Your task to perform on an android device: change the clock style Image 0: 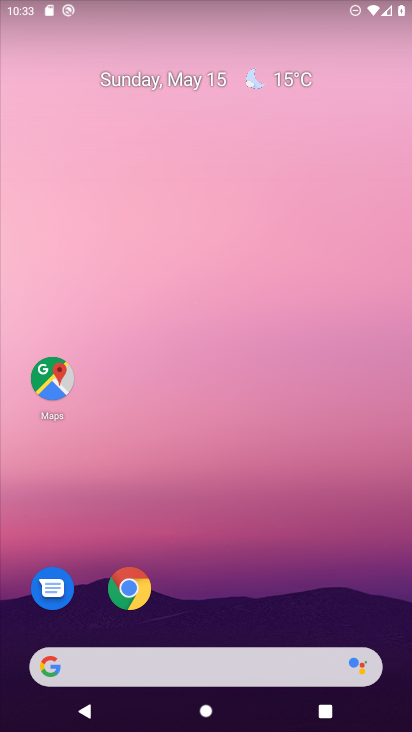
Step 0: drag from (216, 580) to (276, 155)
Your task to perform on an android device: change the clock style Image 1: 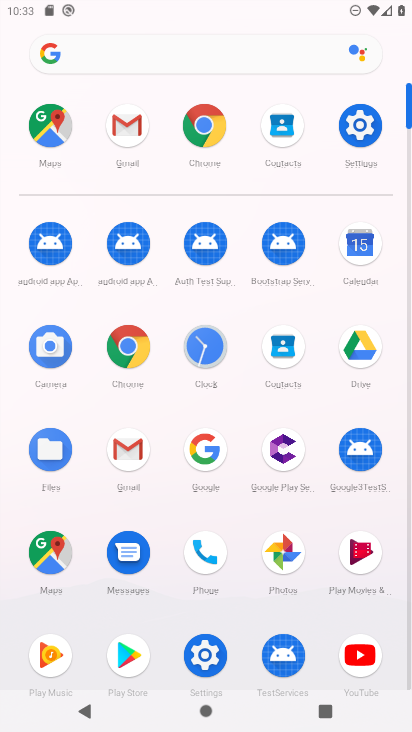
Step 1: click (209, 356)
Your task to perform on an android device: change the clock style Image 2: 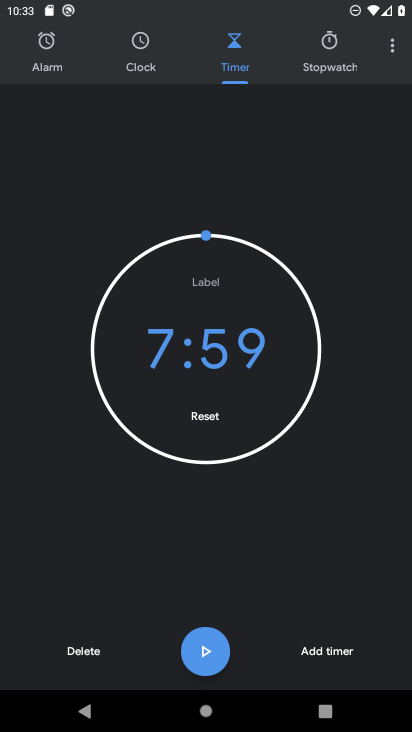
Step 2: click (394, 48)
Your task to perform on an android device: change the clock style Image 3: 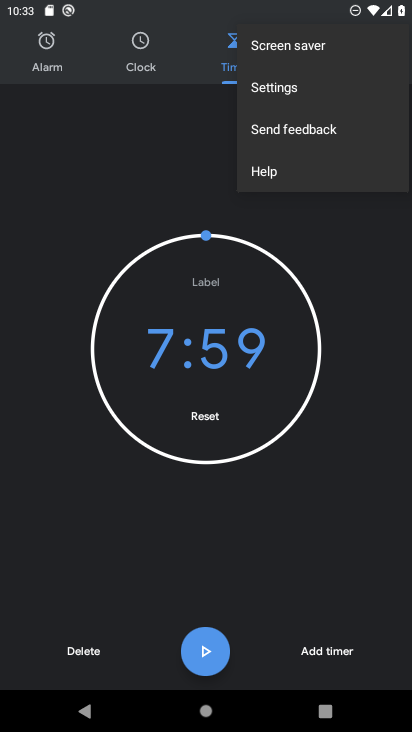
Step 3: click (273, 91)
Your task to perform on an android device: change the clock style Image 4: 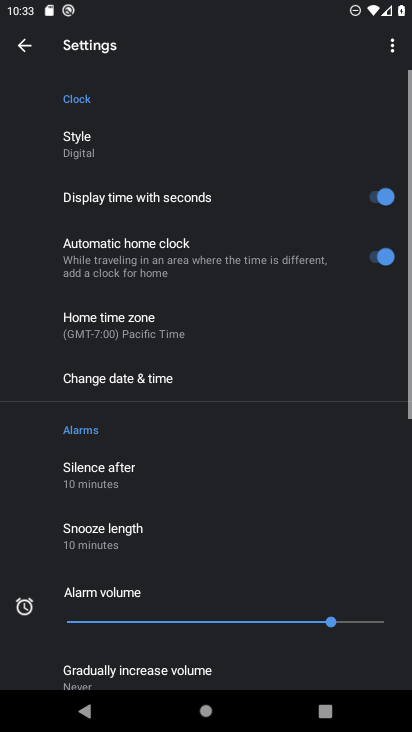
Step 4: click (129, 153)
Your task to perform on an android device: change the clock style Image 5: 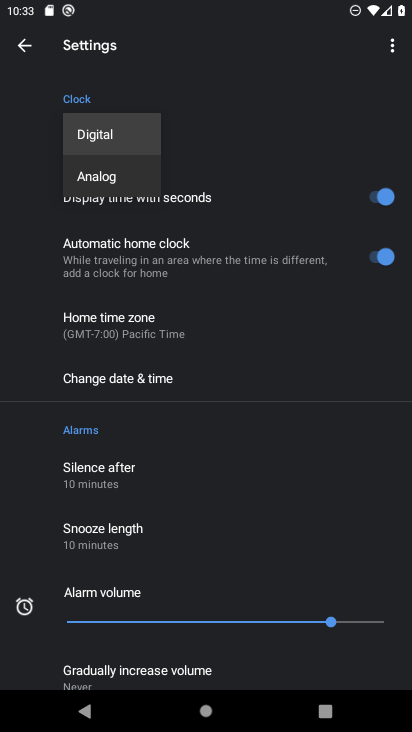
Step 5: click (126, 174)
Your task to perform on an android device: change the clock style Image 6: 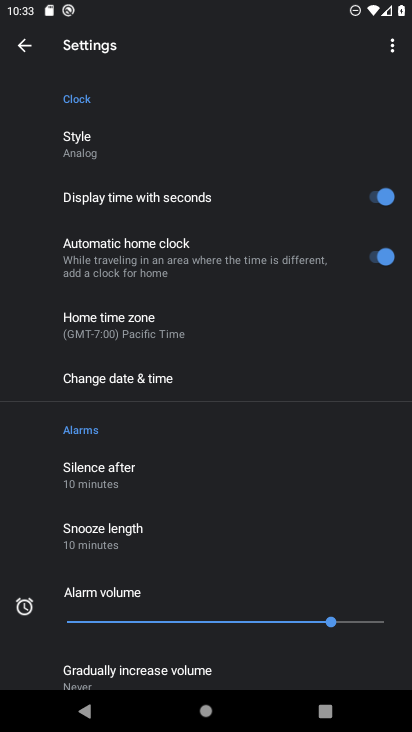
Step 6: task complete